Your task to perform on an android device: Open Yahoo.com Image 0: 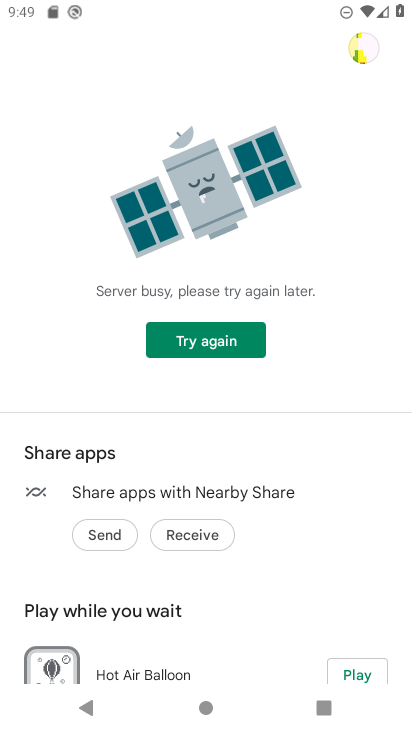
Step 0: press home button
Your task to perform on an android device: Open Yahoo.com Image 1: 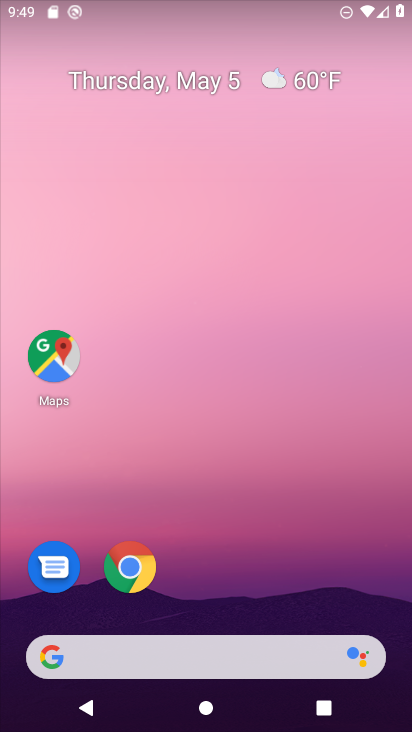
Step 1: click (128, 567)
Your task to perform on an android device: Open Yahoo.com Image 2: 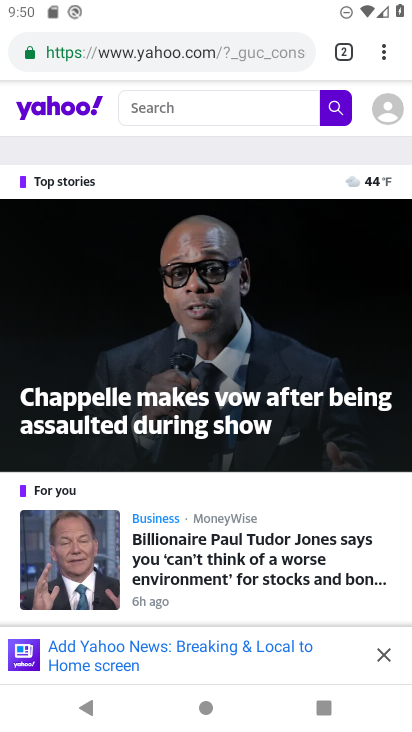
Step 2: task complete